Your task to perform on an android device: Open CNN.com Image 0: 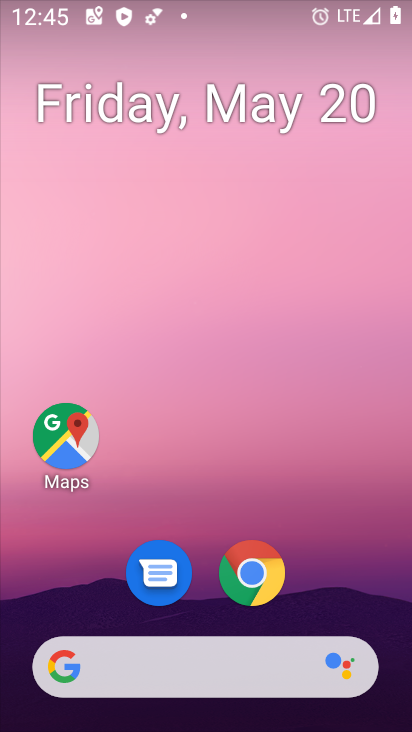
Step 0: drag from (307, 557) to (271, 115)
Your task to perform on an android device: Open CNN.com Image 1: 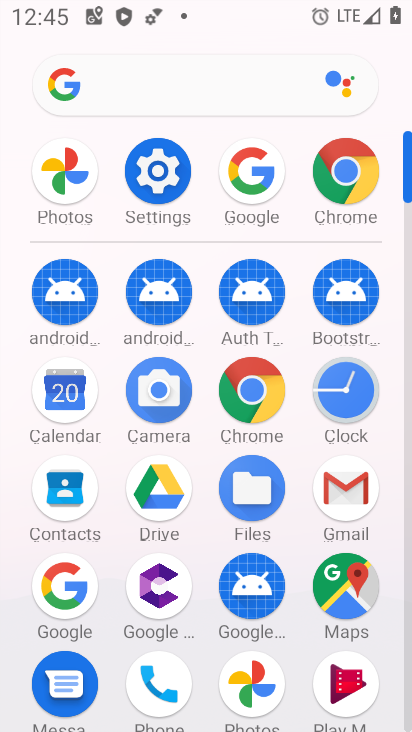
Step 1: click (246, 182)
Your task to perform on an android device: Open CNN.com Image 2: 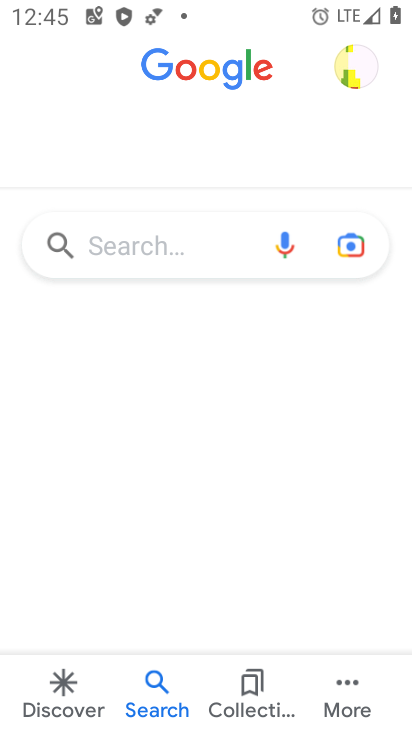
Step 2: click (166, 240)
Your task to perform on an android device: Open CNN.com Image 3: 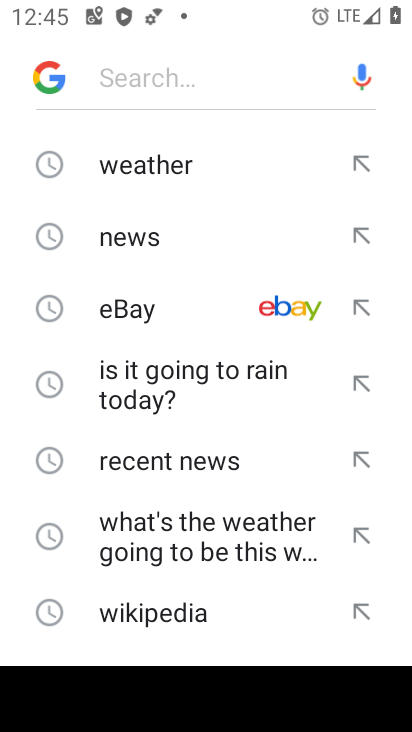
Step 3: drag from (198, 530) to (193, 171)
Your task to perform on an android device: Open CNN.com Image 4: 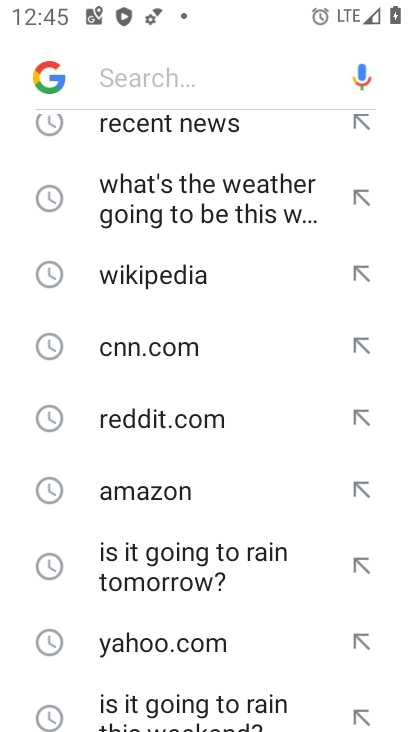
Step 4: click (189, 339)
Your task to perform on an android device: Open CNN.com Image 5: 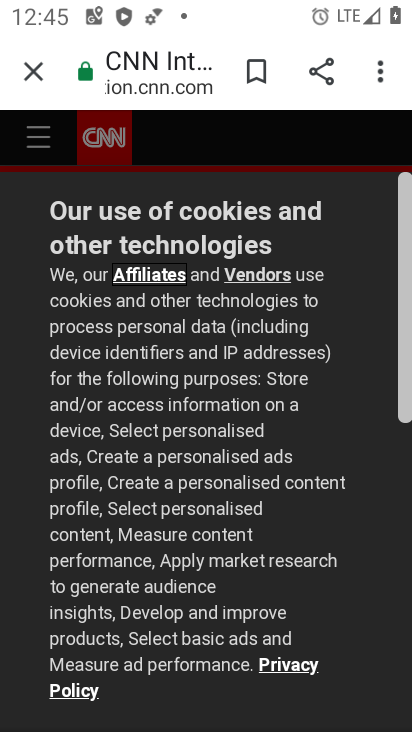
Step 5: task complete